Your task to perform on an android device: change text size in settings app Image 0: 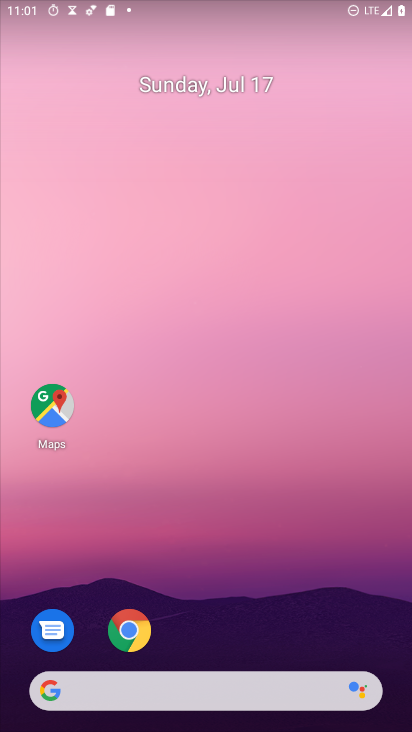
Step 0: drag from (131, 520) to (209, 0)
Your task to perform on an android device: change text size in settings app Image 1: 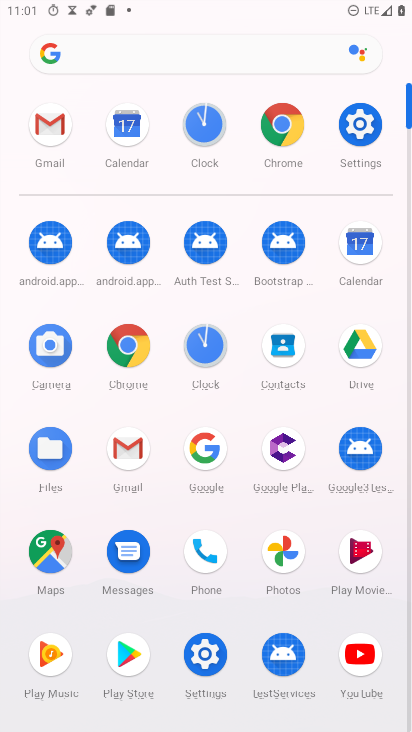
Step 1: click (348, 115)
Your task to perform on an android device: change text size in settings app Image 2: 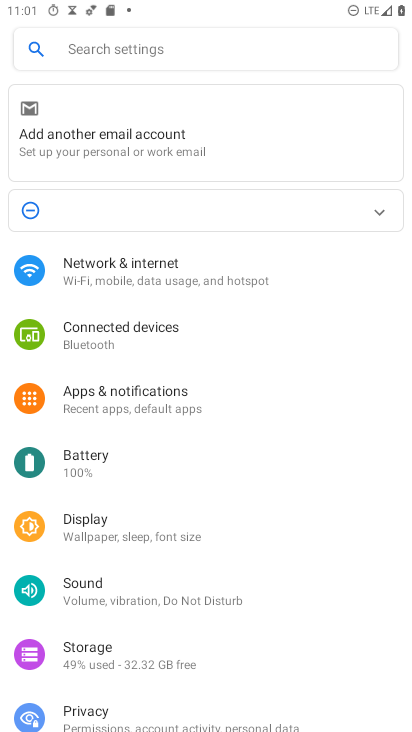
Step 2: drag from (170, 662) to (193, 398)
Your task to perform on an android device: change text size in settings app Image 3: 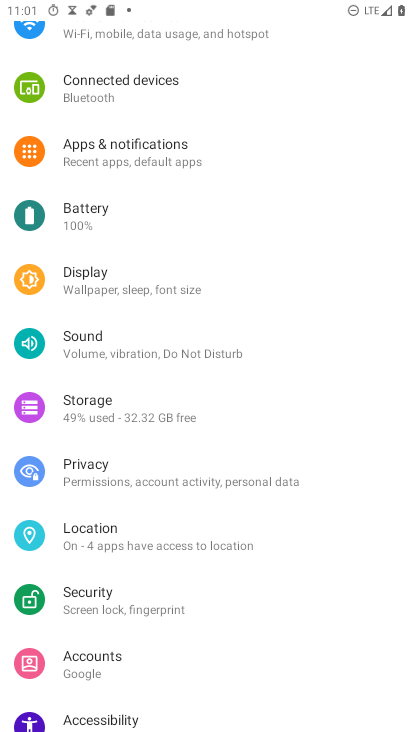
Step 3: drag from (136, 712) to (136, 258)
Your task to perform on an android device: change text size in settings app Image 4: 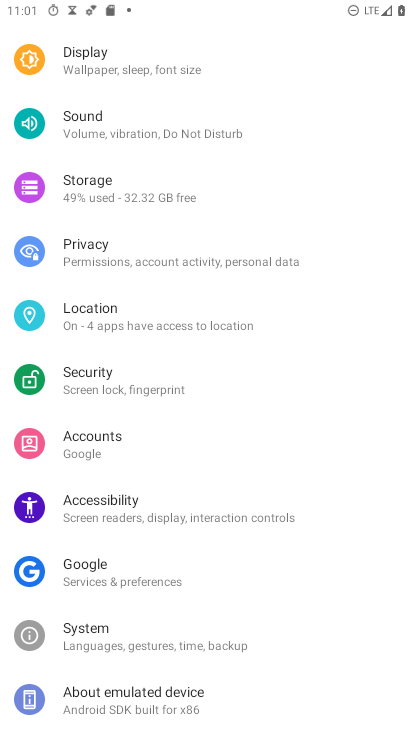
Step 4: click (166, 510)
Your task to perform on an android device: change text size in settings app Image 5: 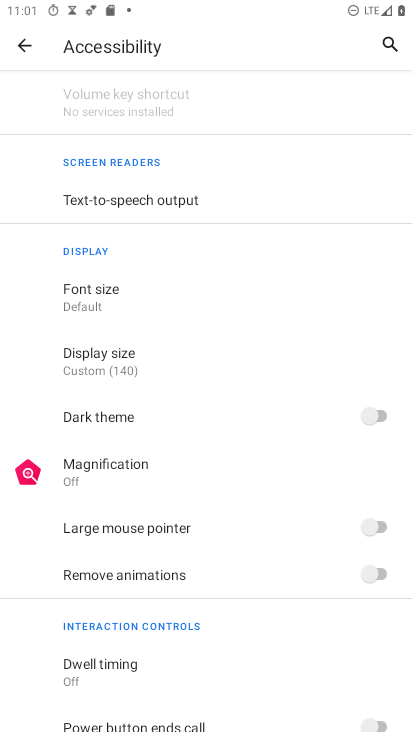
Step 5: click (112, 290)
Your task to perform on an android device: change text size in settings app Image 6: 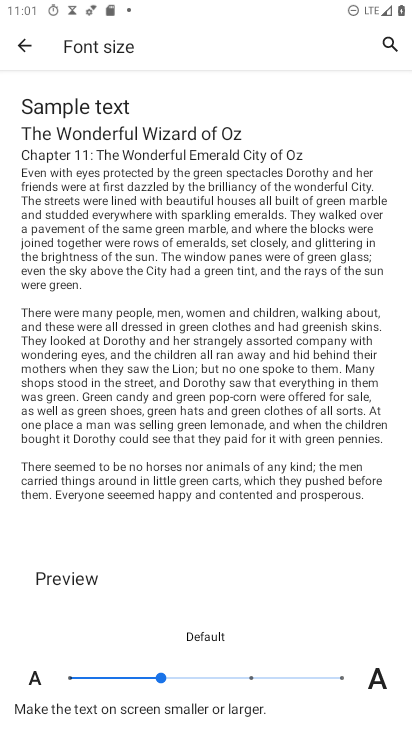
Step 6: click (233, 673)
Your task to perform on an android device: change text size in settings app Image 7: 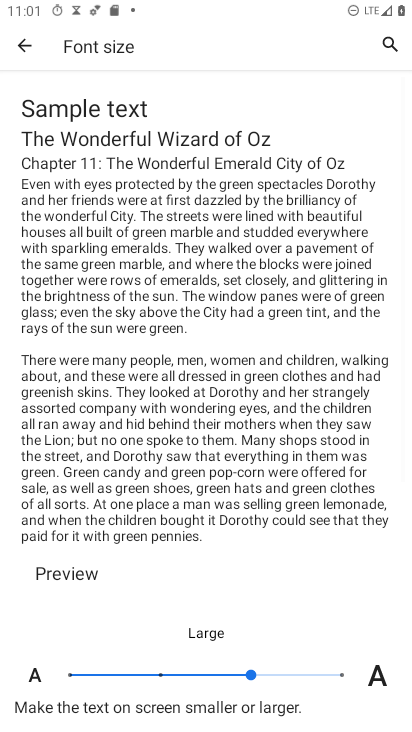
Step 7: task complete